Your task to perform on an android device: Go to Yahoo.com Image 0: 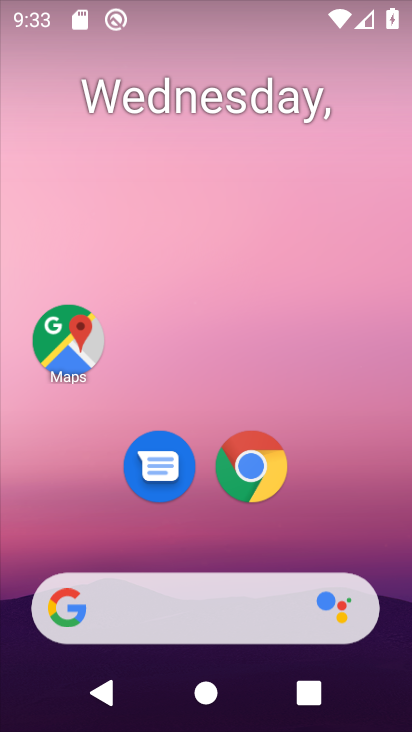
Step 0: drag from (351, 439) to (297, 19)
Your task to perform on an android device: Go to Yahoo.com Image 1: 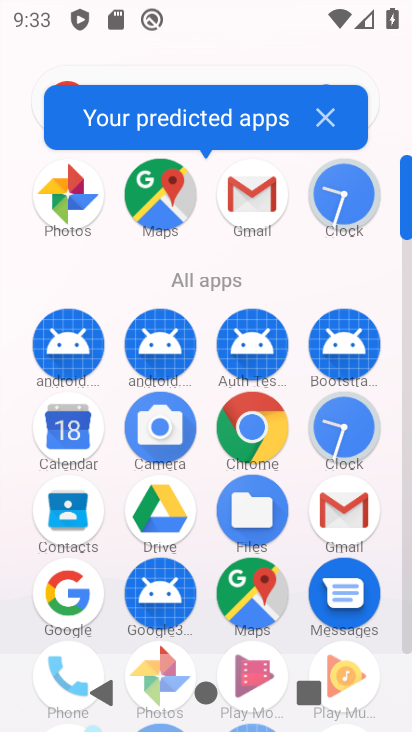
Step 1: click (240, 439)
Your task to perform on an android device: Go to Yahoo.com Image 2: 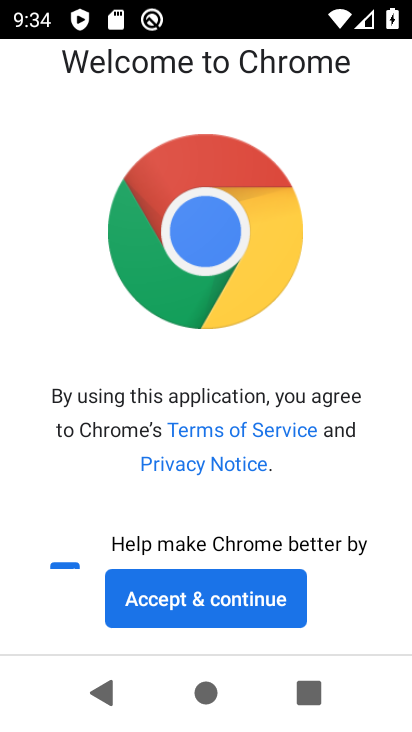
Step 2: click (250, 617)
Your task to perform on an android device: Go to Yahoo.com Image 3: 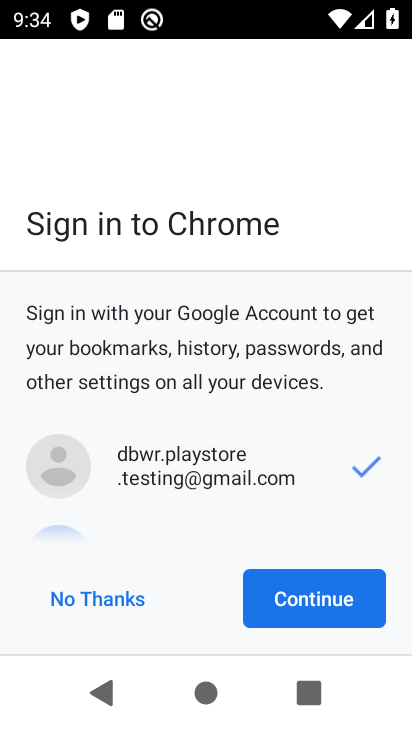
Step 3: click (122, 593)
Your task to perform on an android device: Go to Yahoo.com Image 4: 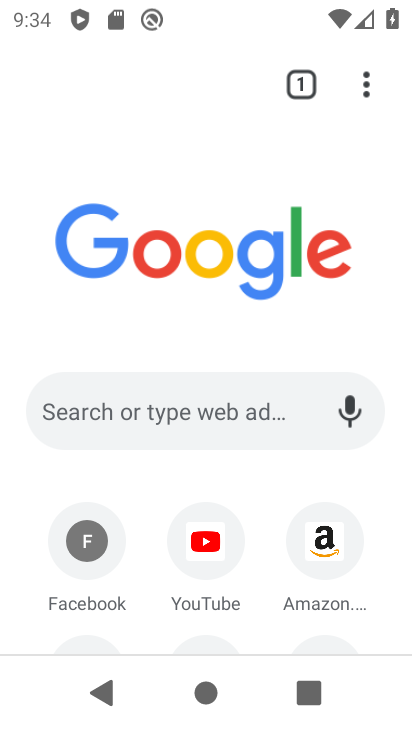
Step 4: click (243, 411)
Your task to perform on an android device: Go to Yahoo.com Image 5: 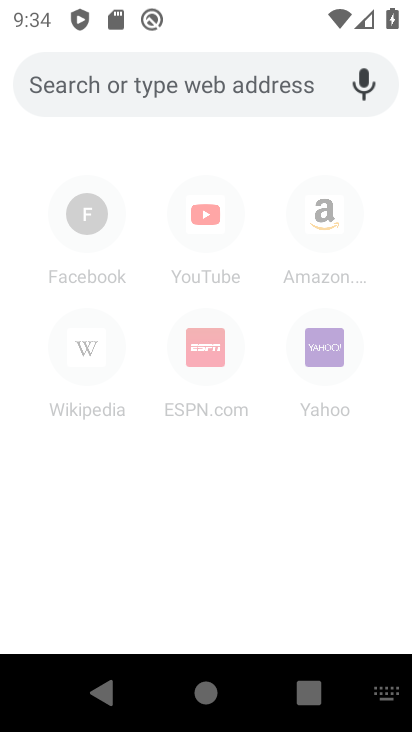
Step 5: press back button
Your task to perform on an android device: Go to Yahoo.com Image 6: 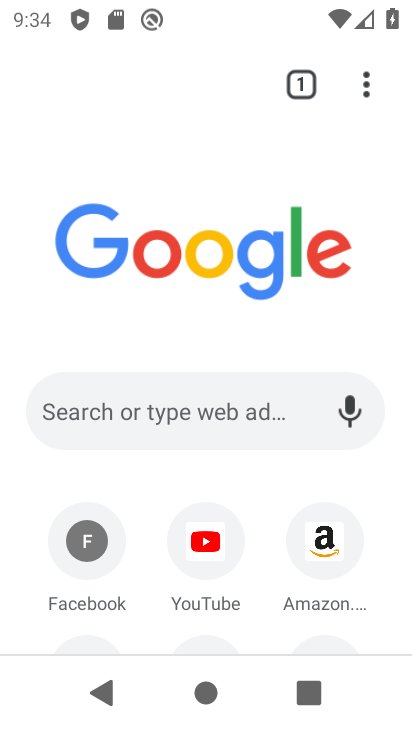
Step 6: drag from (393, 625) to (412, 194)
Your task to perform on an android device: Go to Yahoo.com Image 7: 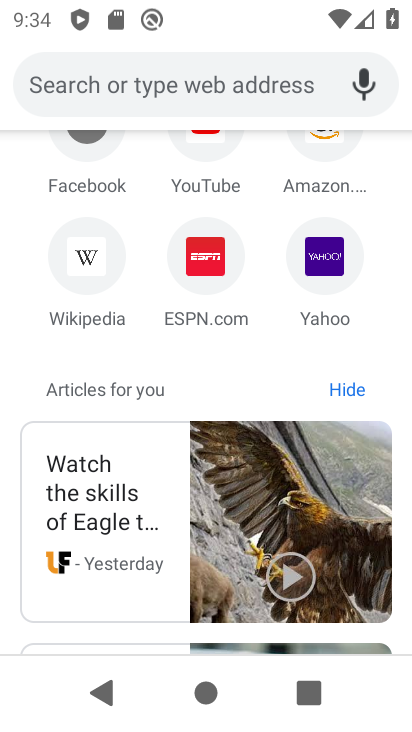
Step 7: click (315, 263)
Your task to perform on an android device: Go to Yahoo.com Image 8: 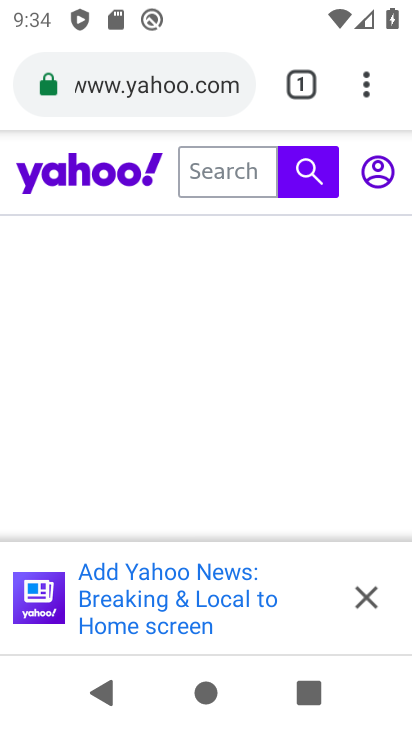
Step 8: task complete